Your task to perform on an android device: remove spam from my inbox in the gmail app Image 0: 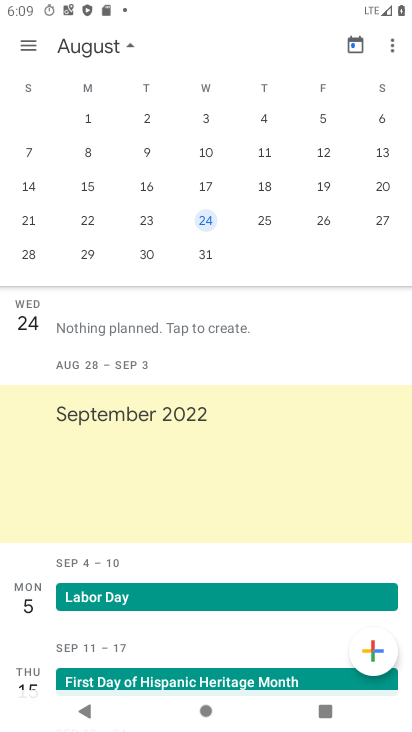
Step 0: press home button
Your task to perform on an android device: remove spam from my inbox in the gmail app Image 1: 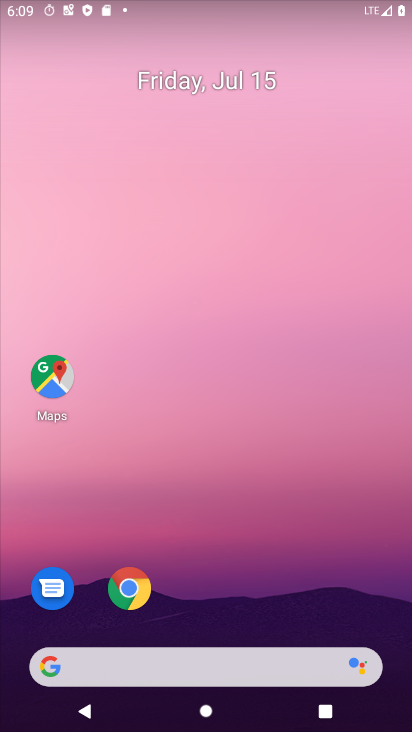
Step 1: drag from (290, 604) to (313, 129)
Your task to perform on an android device: remove spam from my inbox in the gmail app Image 2: 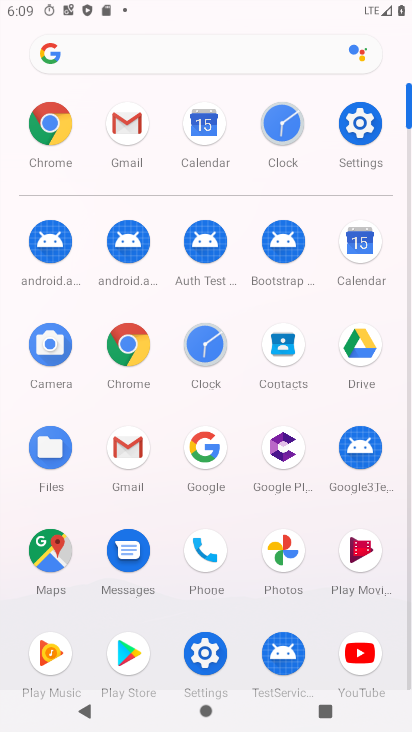
Step 2: click (140, 443)
Your task to perform on an android device: remove spam from my inbox in the gmail app Image 3: 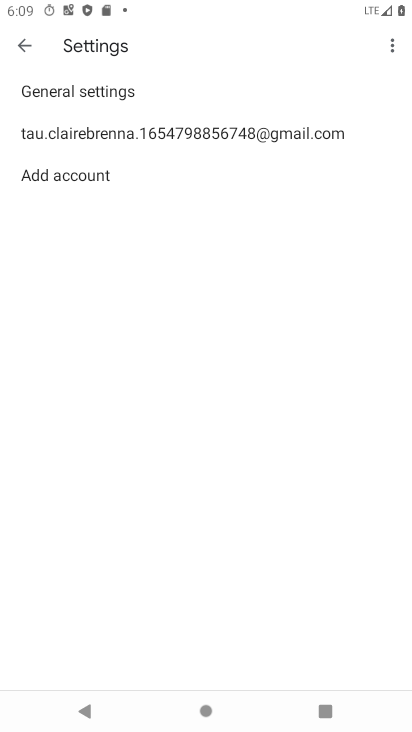
Step 3: press back button
Your task to perform on an android device: remove spam from my inbox in the gmail app Image 4: 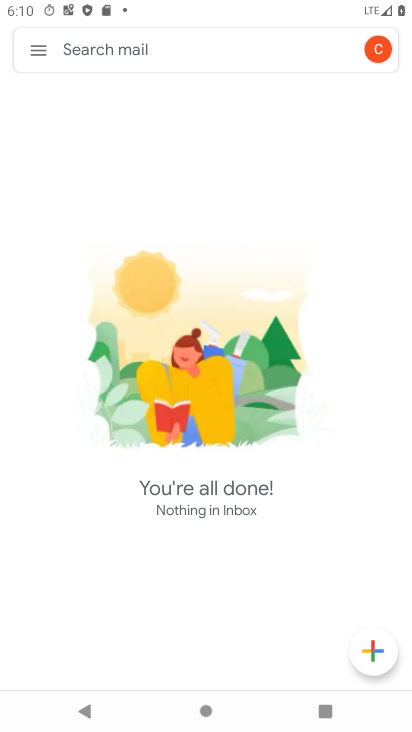
Step 4: click (42, 53)
Your task to perform on an android device: remove spam from my inbox in the gmail app Image 5: 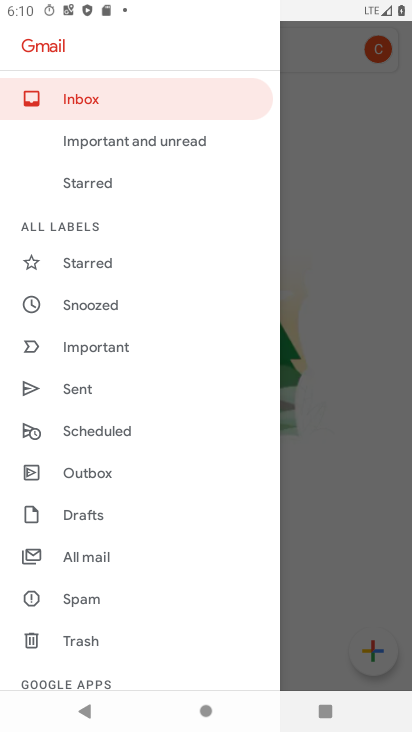
Step 5: click (98, 590)
Your task to perform on an android device: remove spam from my inbox in the gmail app Image 6: 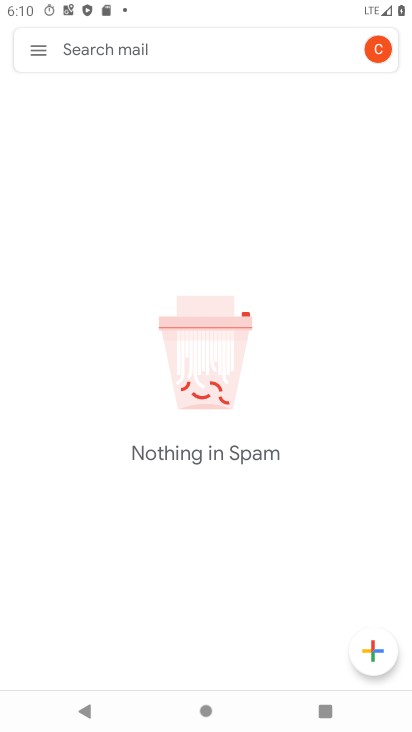
Step 6: task complete